Your task to perform on an android device: Open Chrome and go to settings Image 0: 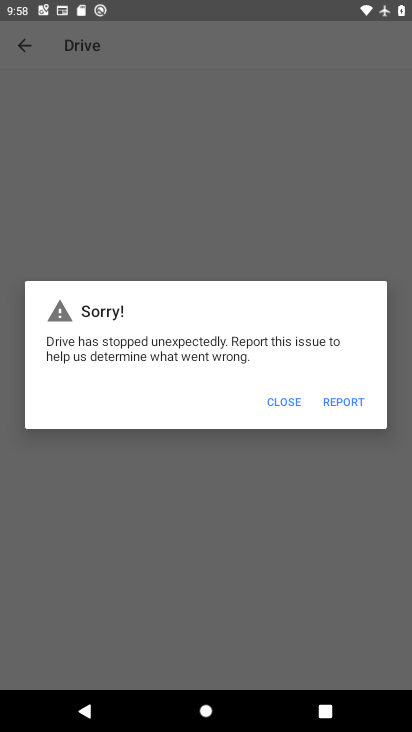
Step 0: press home button
Your task to perform on an android device: Open Chrome and go to settings Image 1: 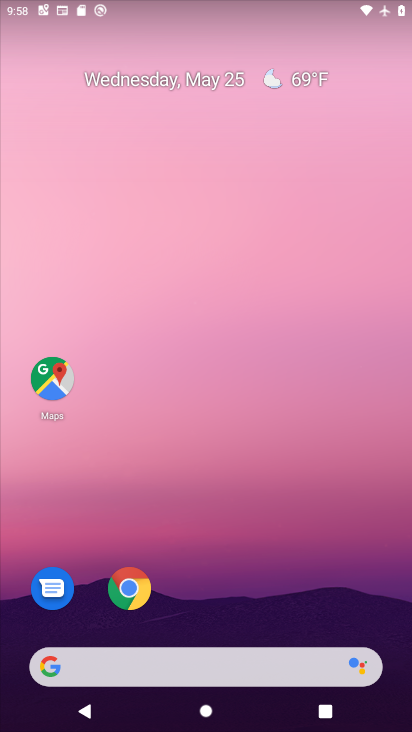
Step 1: drag from (369, 608) to (373, 193)
Your task to perform on an android device: Open Chrome and go to settings Image 2: 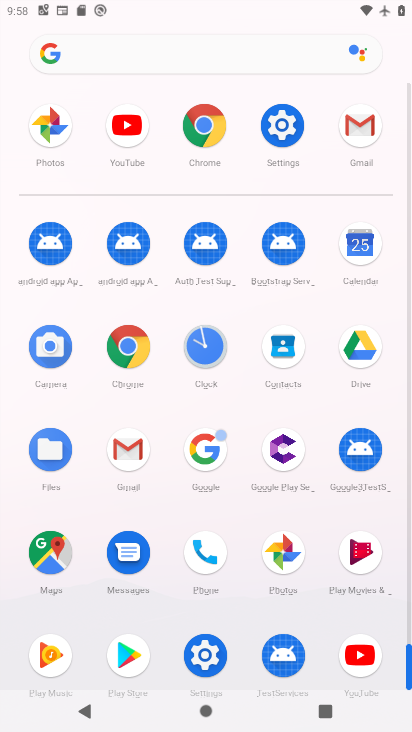
Step 2: click (134, 357)
Your task to perform on an android device: Open Chrome and go to settings Image 3: 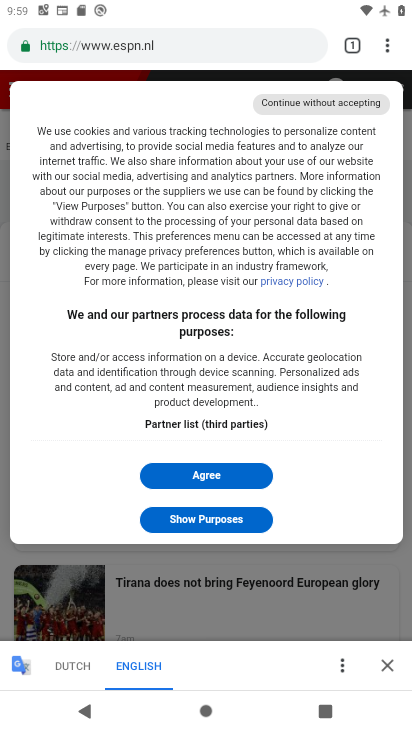
Step 3: click (388, 50)
Your task to perform on an android device: Open Chrome and go to settings Image 4: 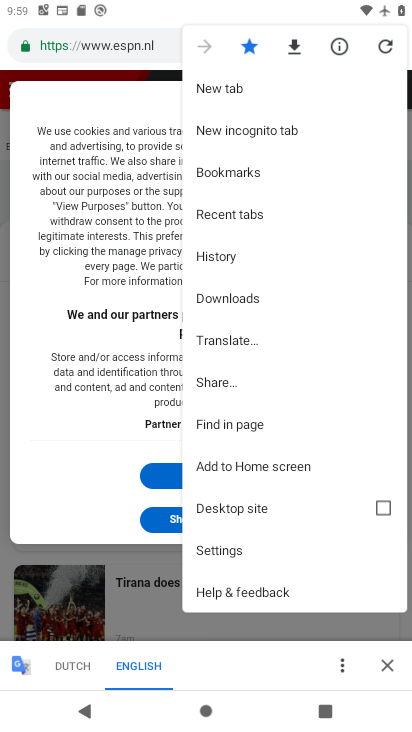
Step 4: click (233, 561)
Your task to perform on an android device: Open Chrome and go to settings Image 5: 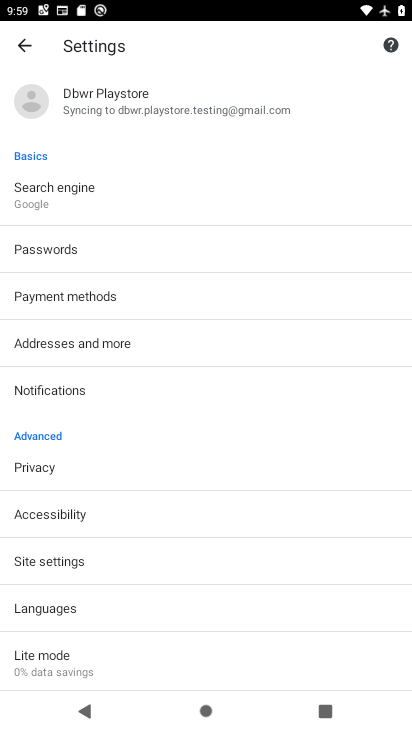
Step 5: task complete